Your task to perform on an android device: check out phone information Image 0: 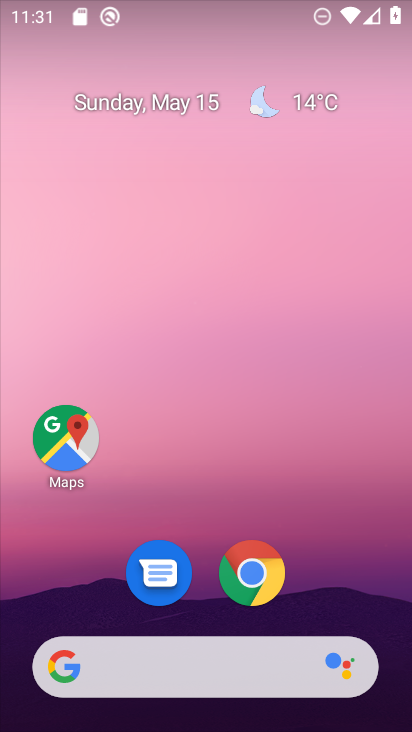
Step 0: drag from (222, 488) to (143, 101)
Your task to perform on an android device: check out phone information Image 1: 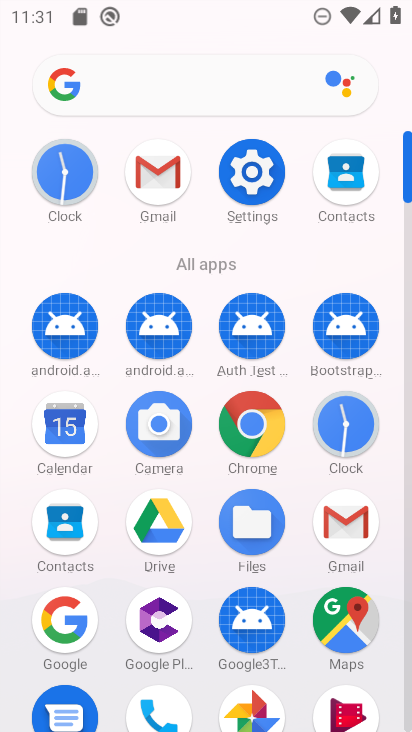
Step 1: click (257, 174)
Your task to perform on an android device: check out phone information Image 2: 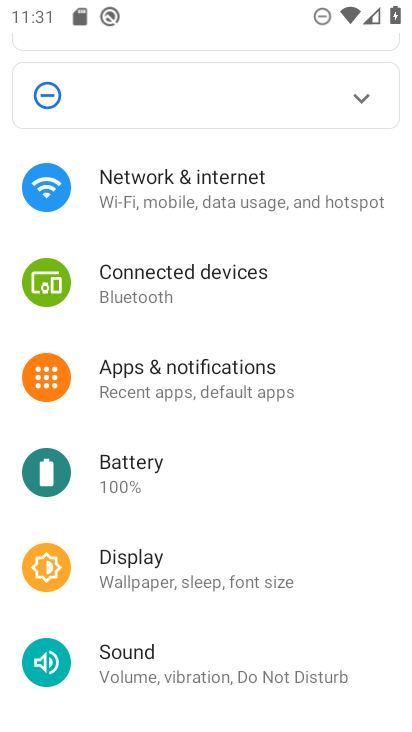
Step 2: drag from (203, 634) to (148, 290)
Your task to perform on an android device: check out phone information Image 3: 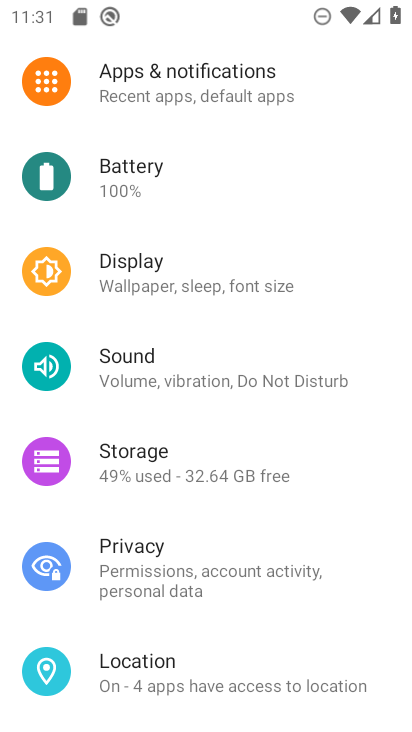
Step 3: drag from (198, 596) to (159, 223)
Your task to perform on an android device: check out phone information Image 4: 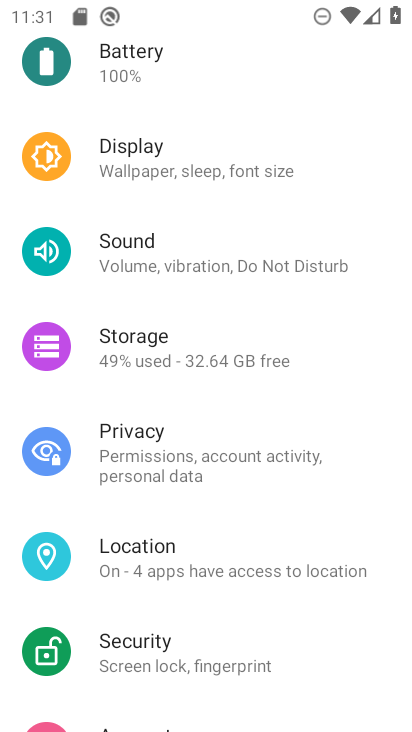
Step 4: drag from (220, 614) to (234, 252)
Your task to perform on an android device: check out phone information Image 5: 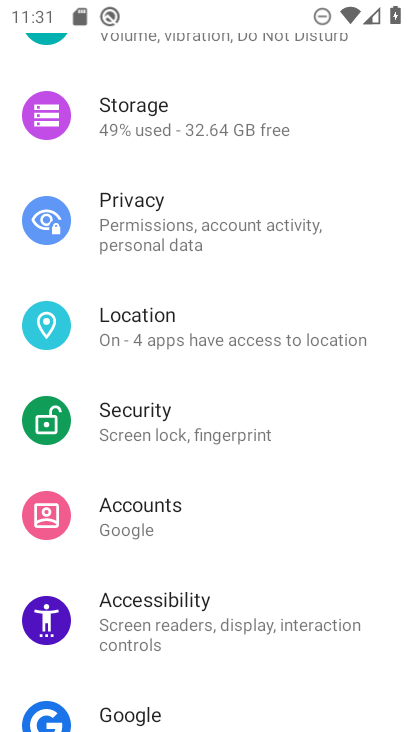
Step 5: drag from (181, 563) to (166, 172)
Your task to perform on an android device: check out phone information Image 6: 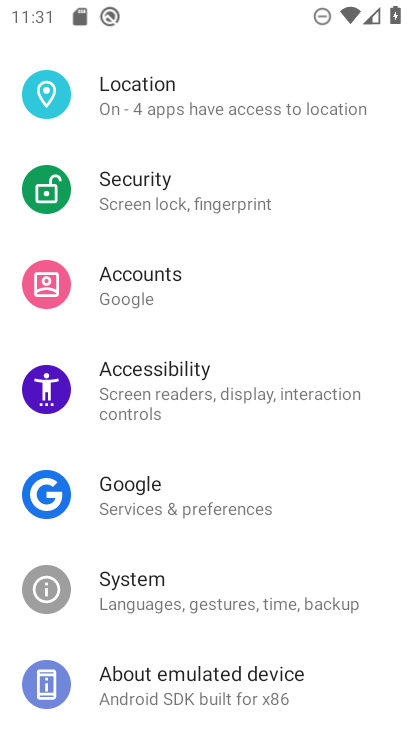
Step 6: drag from (178, 640) to (158, 375)
Your task to perform on an android device: check out phone information Image 7: 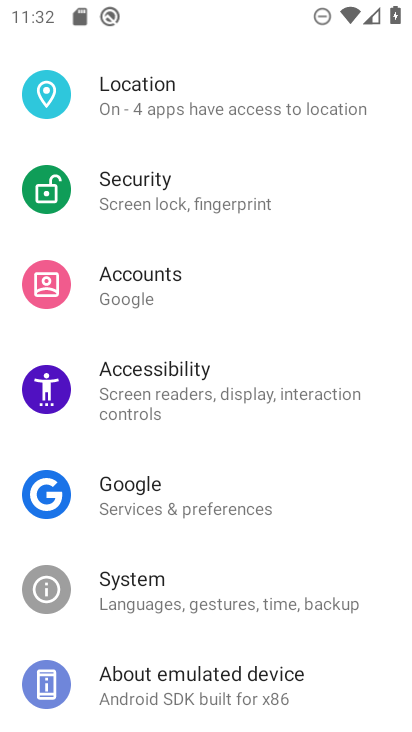
Step 7: click (139, 678)
Your task to perform on an android device: check out phone information Image 8: 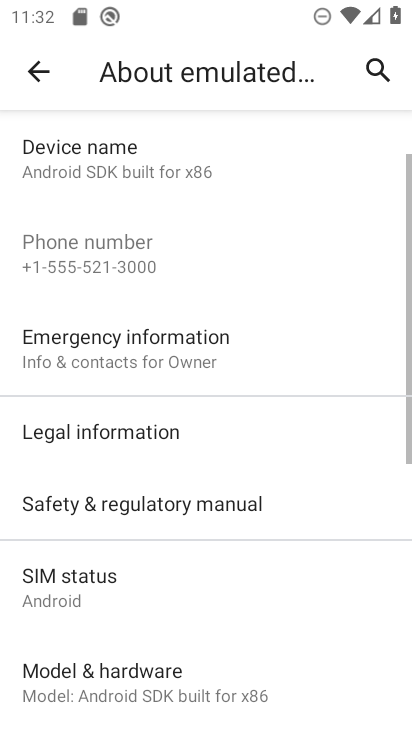
Step 8: task complete